Your task to perform on an android device: turn on wifi Image 0: 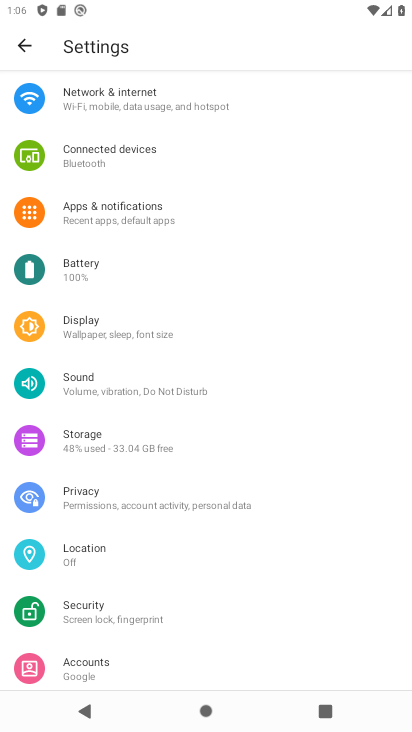
Step 0: click (162, 101)
Your task to perform on an android device: turn on wifi Image 1: 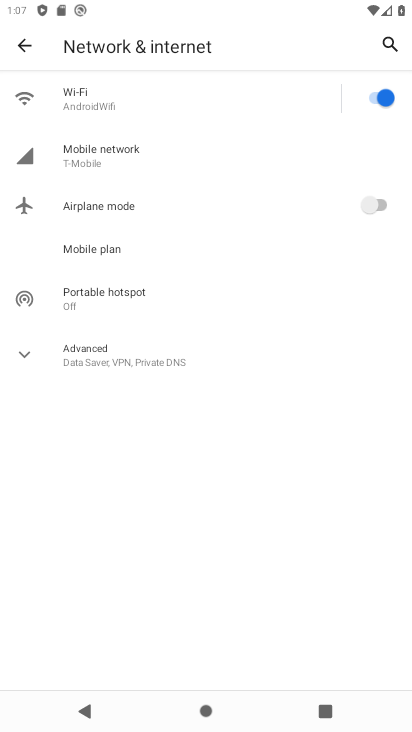
Step 1: task complete